Your task to perform on an android device: Clear the shopping cart on amazon.com. Add rayovac triple a to the cart on amazon.com Image 0: 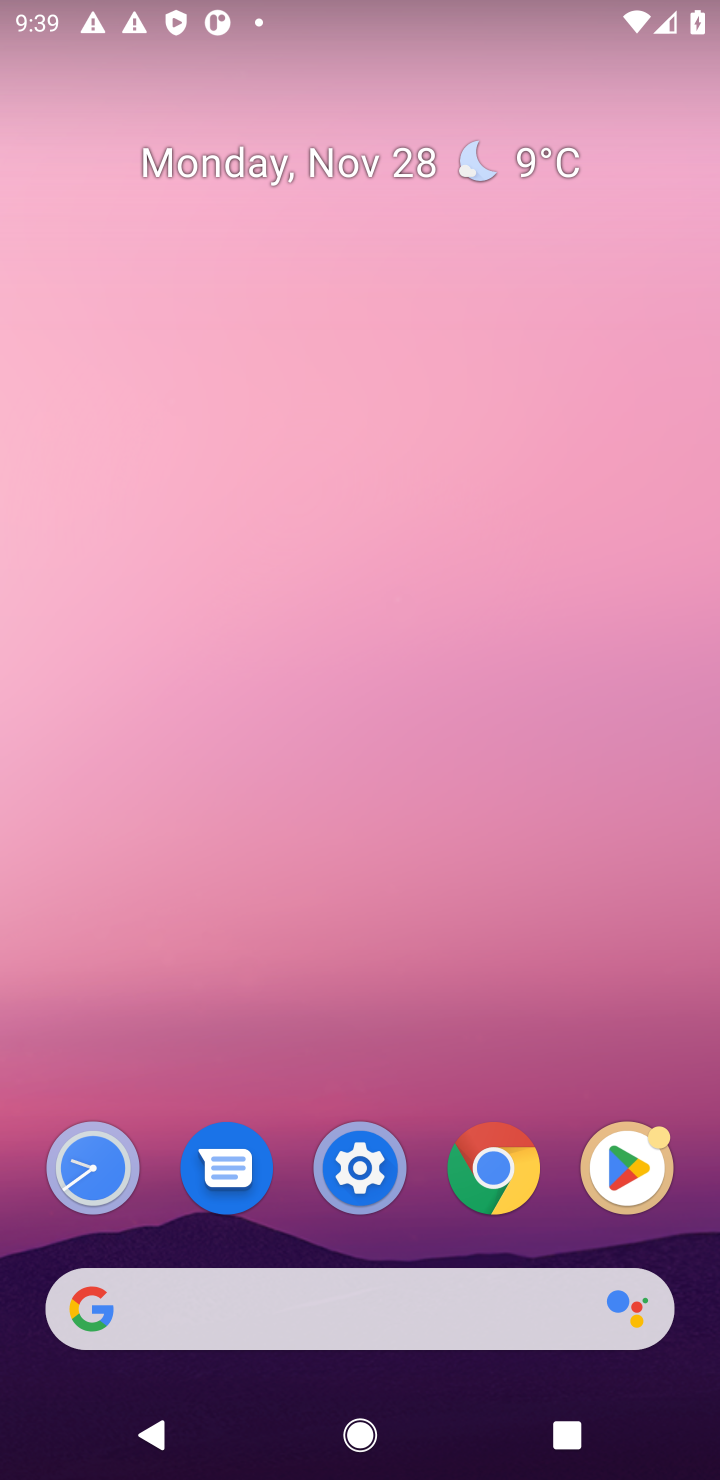
Step 0: click (404, 1317)
Your task to perform on an android device: Clear the shopping cart on amazon.com. Add rayovac triple a to the cart on amazon.com Image 1: 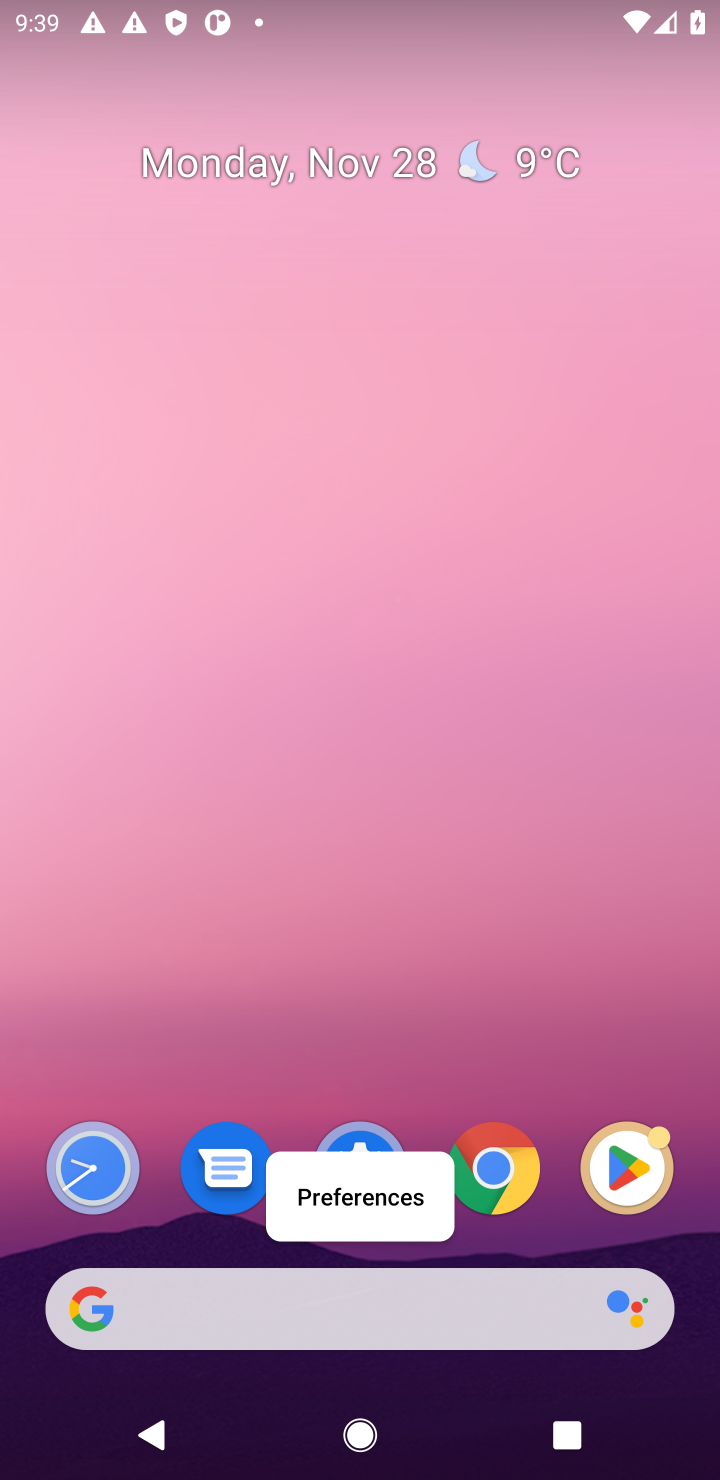
Step 1: type "amazon"
Your task to perform on an android device: Clear the shopping cart on amazon.com. Add rayovac triple a to the cart on amazon.com Image 2: 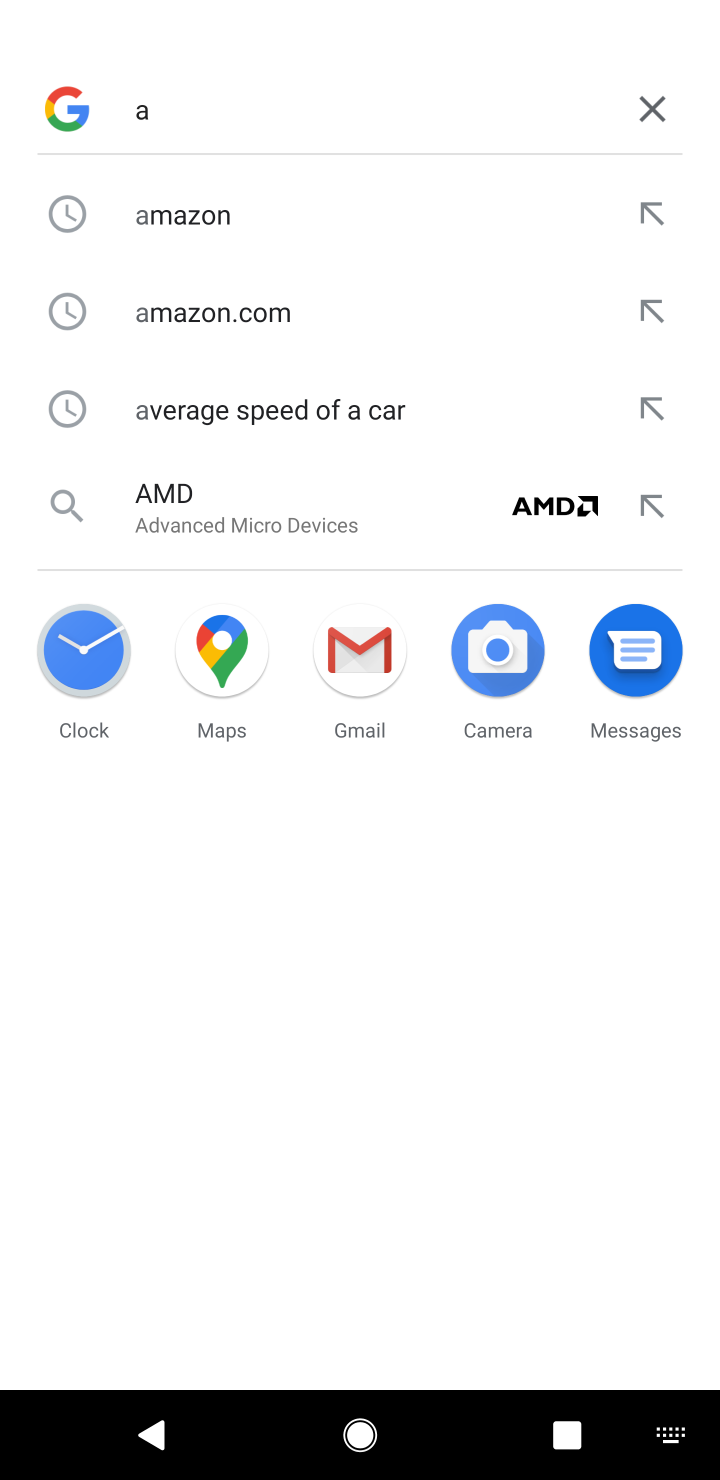
Step 2: click (246, 243)
Your task to perform on an android device: Clear the shopping cart on amazon.com. Add rayovac triple a to the cart on amazon.com Image 3: 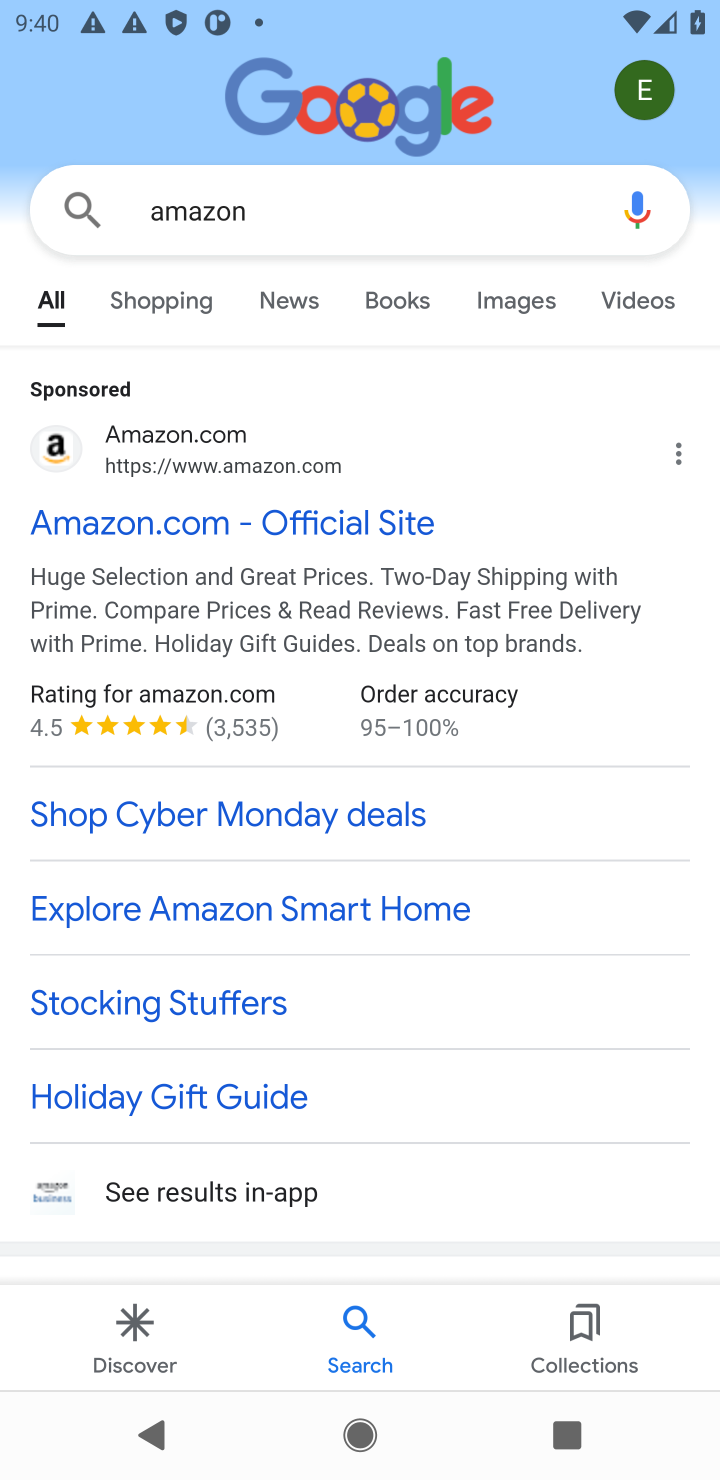
Step 3: click (240, 527)
Your task to perform on an android device: Clear the shopping cart on amazon.com. Add rayovac triple a to the cart on amazon.com Image 4: 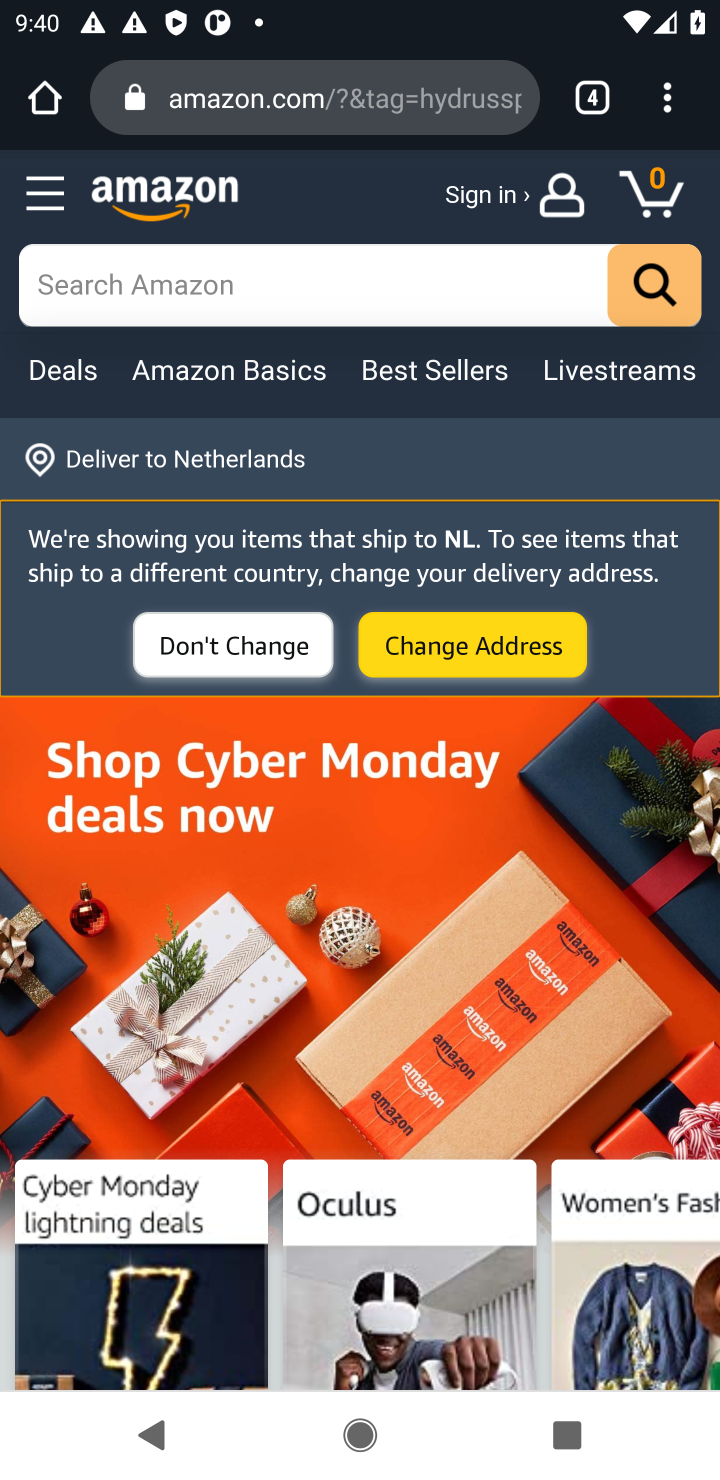
Step 4: click (256, 306)
Your task to perform on an android device: Clear the shopping cart on amazon.com. Add rayovac triple a to the cart on amazon.com Image 5: 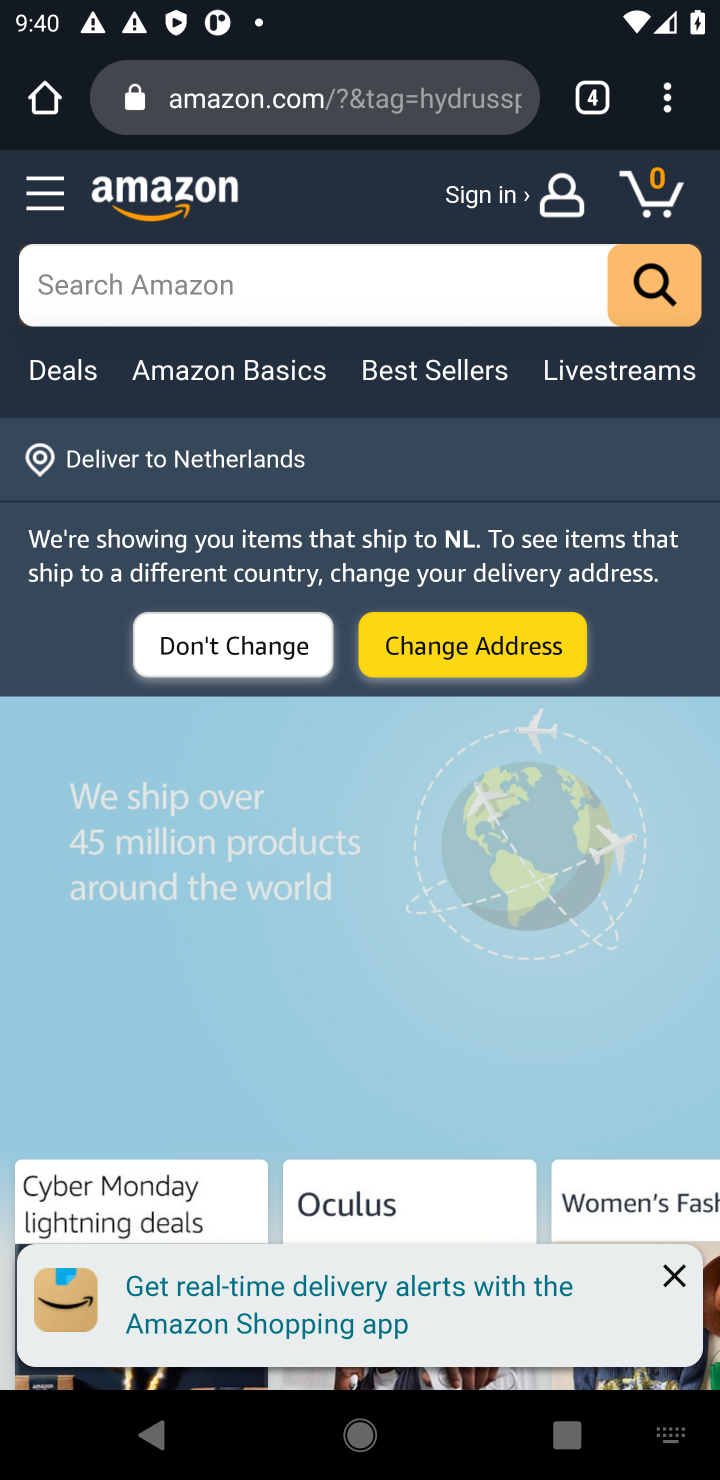
Step 5: type "rayovac"
Your task to perform on an android device: Clear the shopping cart on amazon.com. Add rayovac triple a to the cart on amazon.com Image 6: 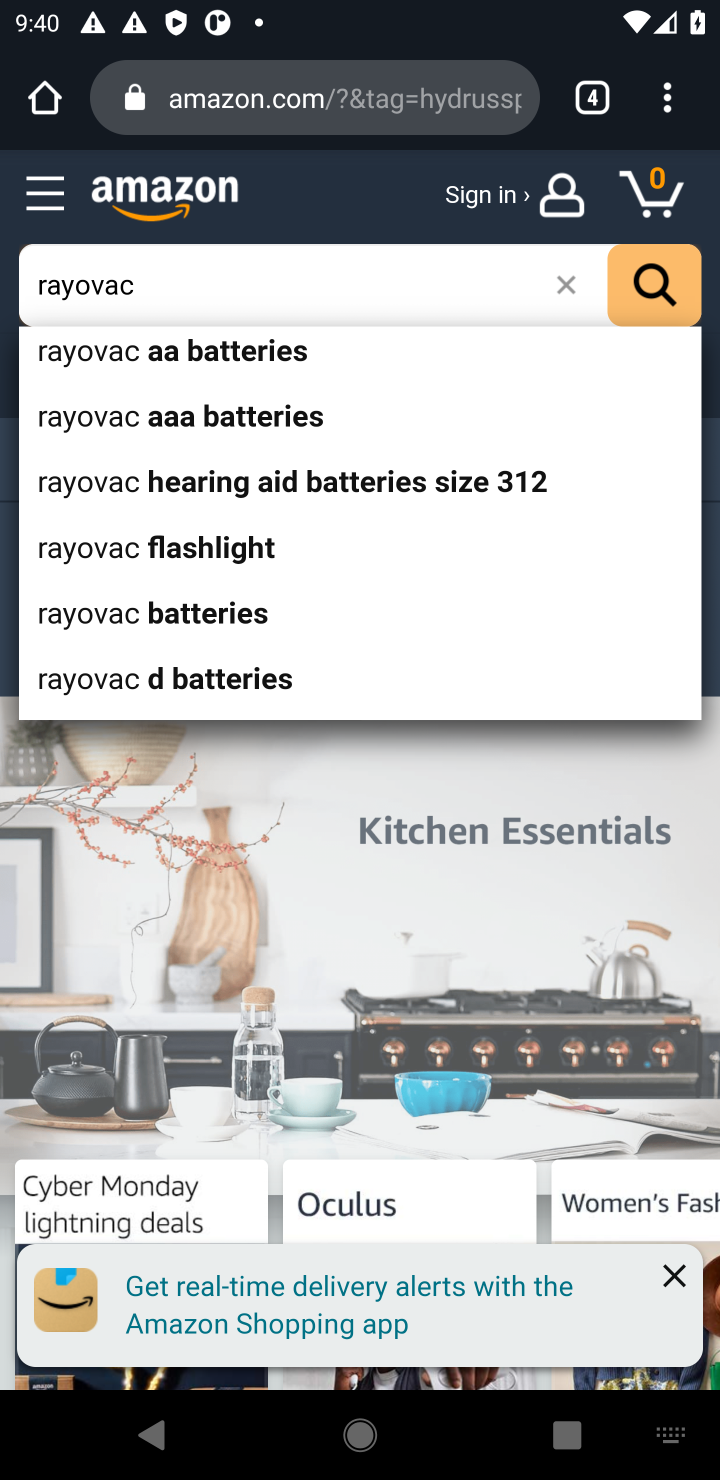
Step 6: click (332, 364)
Your task to perform on an android device: Clear the shopping cart on amazon.com. Add rayovac triple a to the cart on amazon.com Image 7: 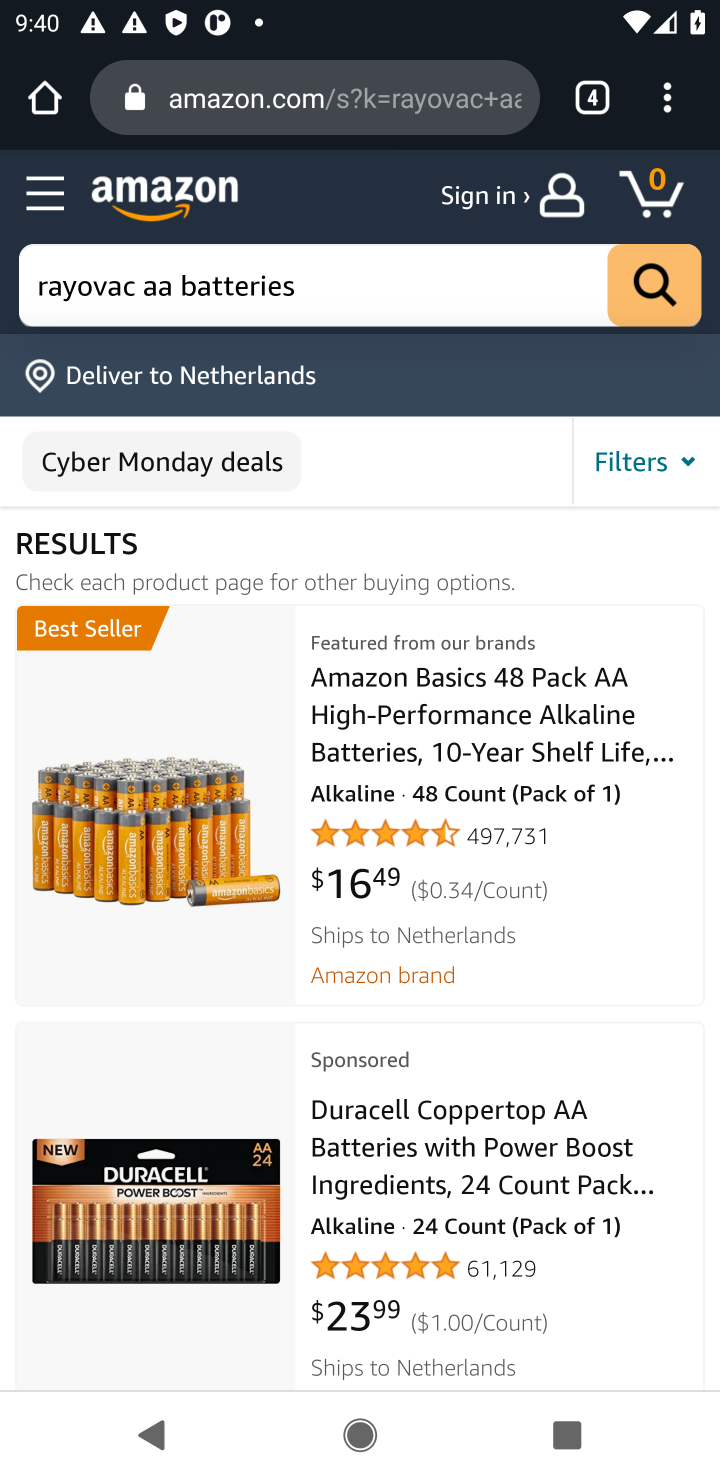
Step 7: click (468, 811)
Your task to perform on an android device: Clear the shopping cart on amazon.com. Add rayovac triple a to the cart on amazon.com Image 8: 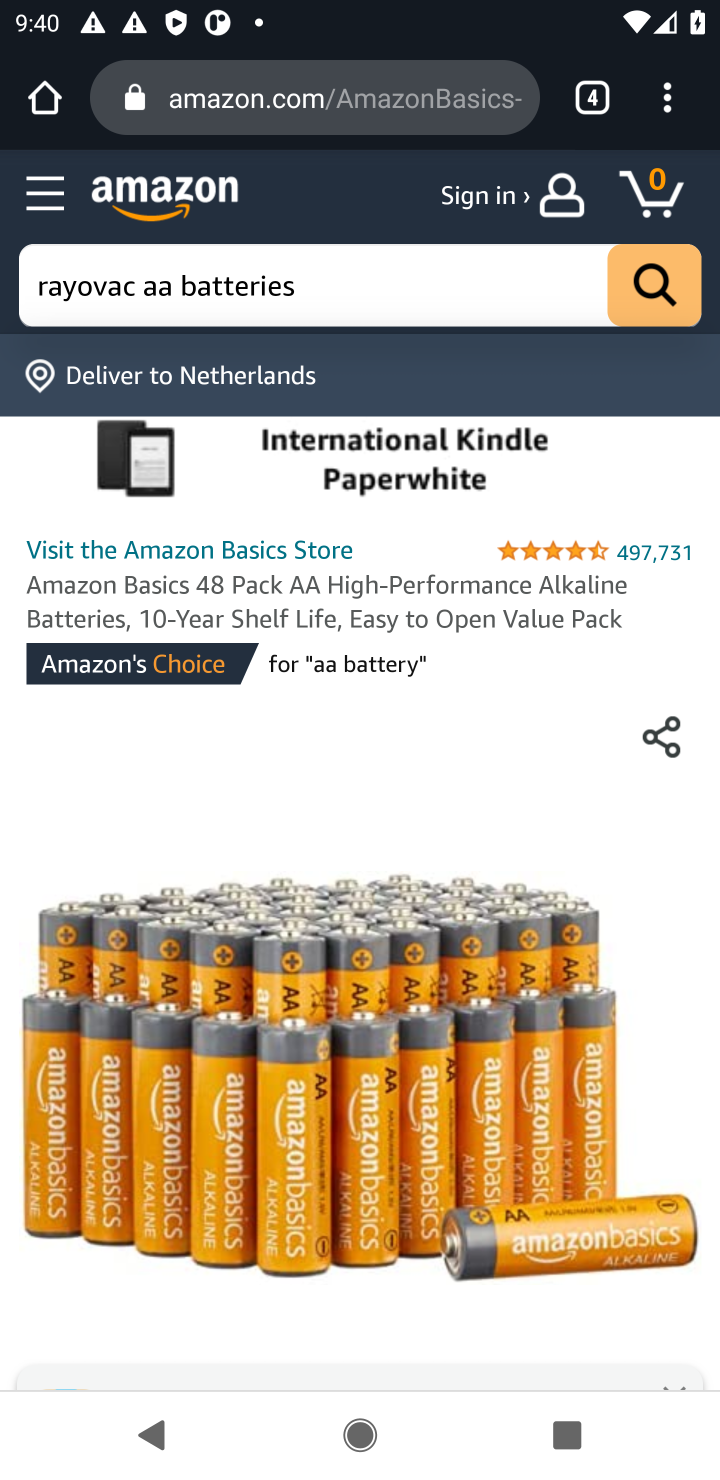
Step 8: click (673, 315)
Your task to perform on an android device: Clear the shopping cart on amazon.com. Add rayovac triple a to the cart on amazon.com Image 9: 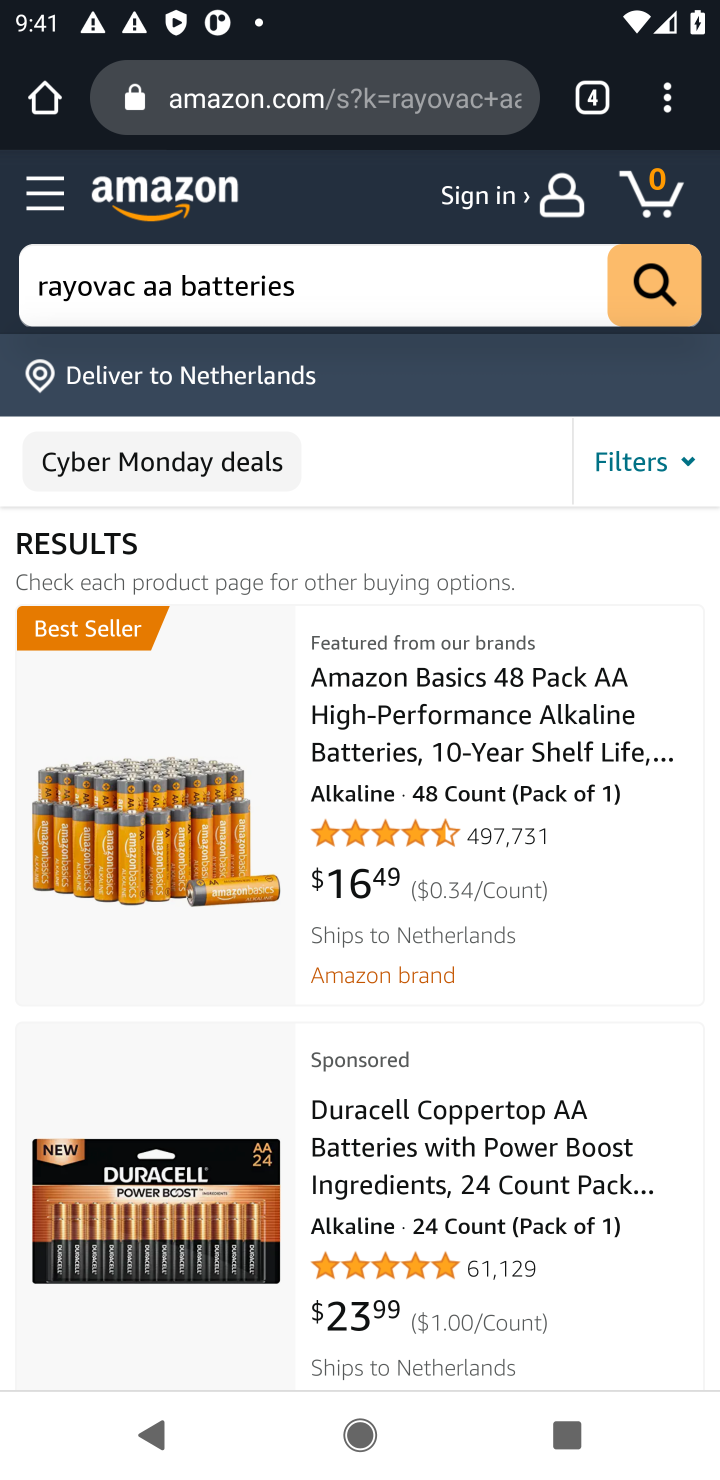
Step 9: click (386, 850)
Your task to perform on an android device: Clear the shopping cart on amazon.com. Add rayovac triple a to the cart on amazon.com Image 10: 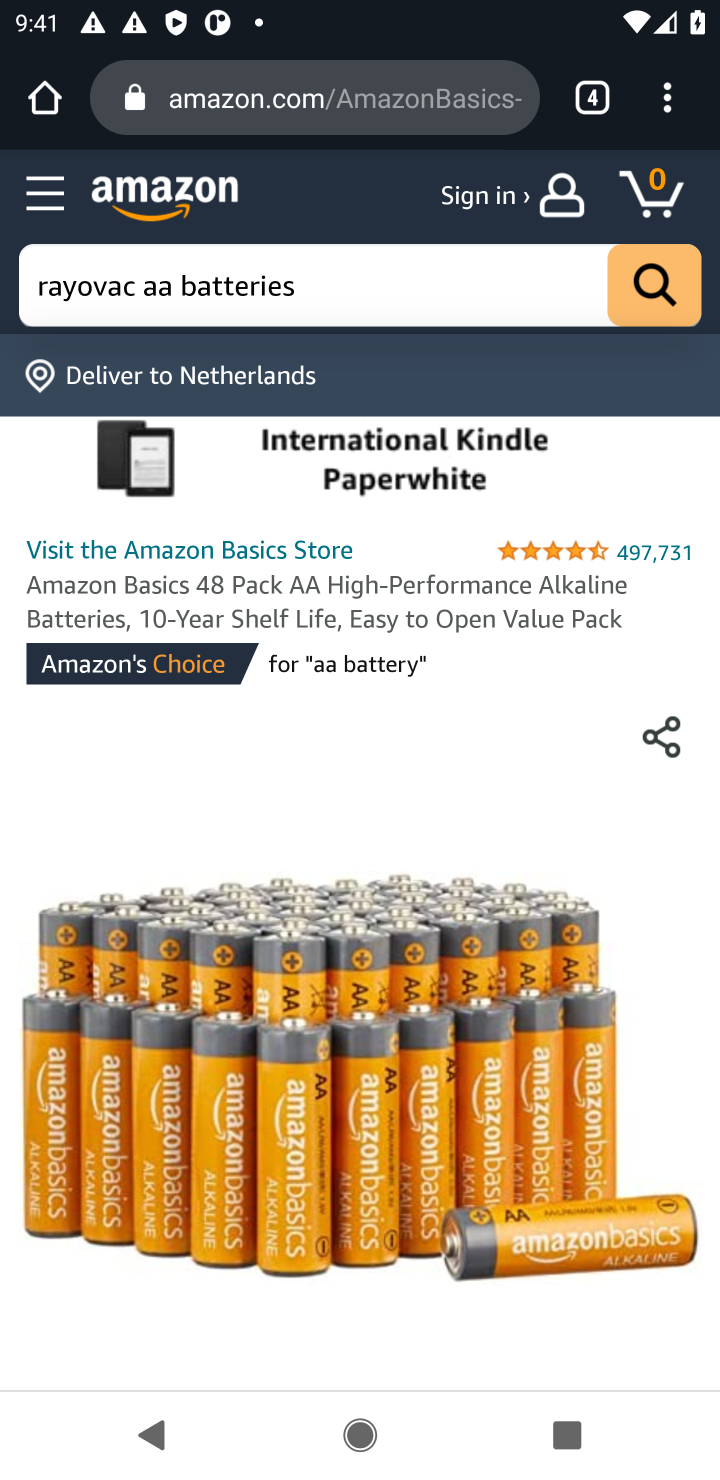
Step 10: task complete